Your task to perform on an android device: open app "HBO Max: Stream TV & Movies" Image 0: 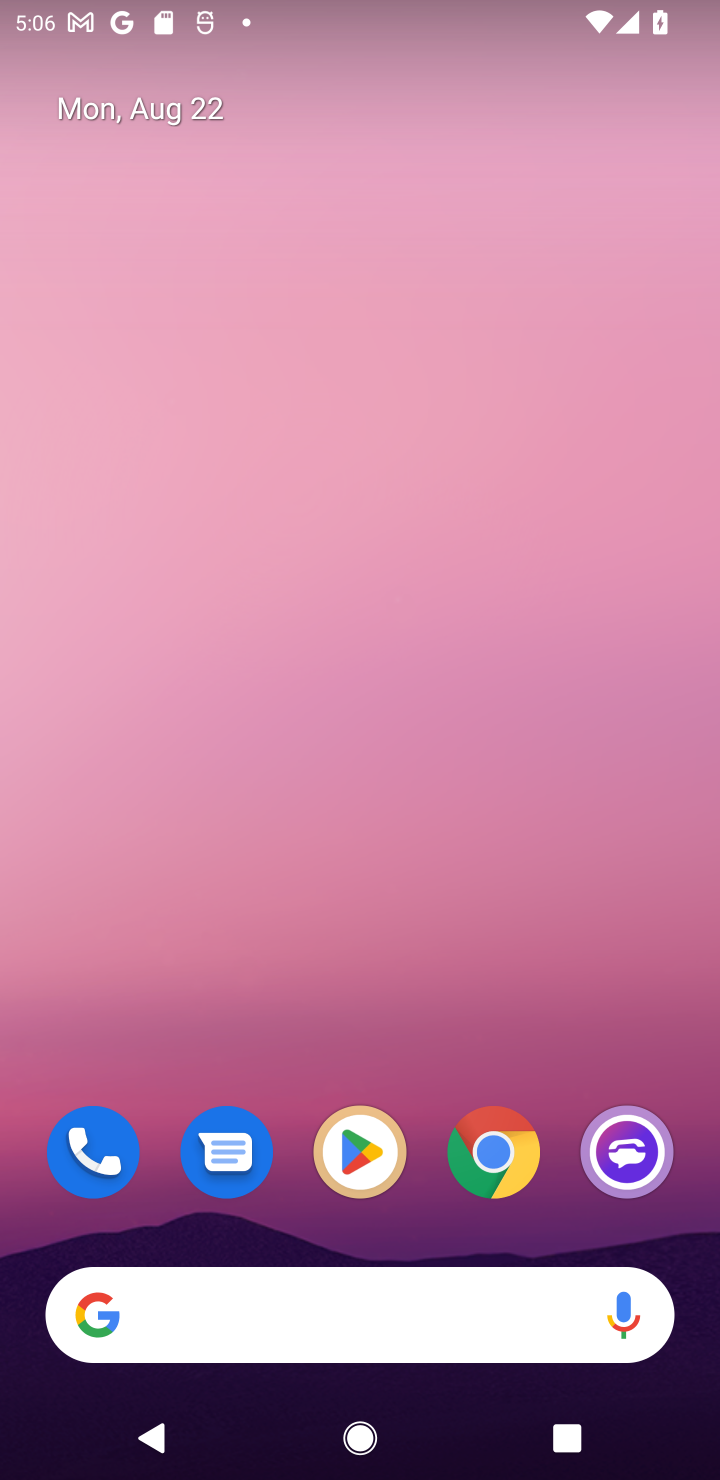
Step 0: click (369, 1157)
Your task to perform on an android device: open app "HBO Max: Stream TV & Movies" Image 1: 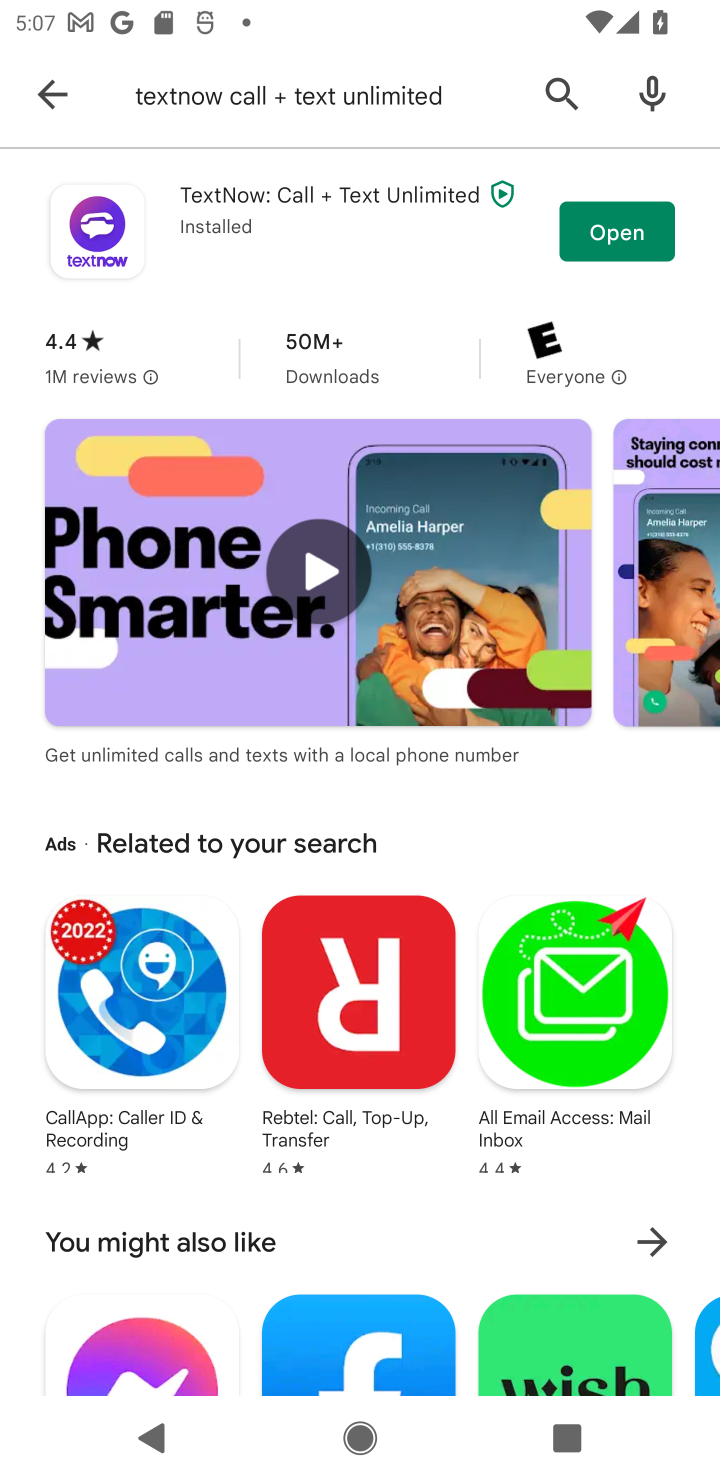
Step 1: click (47, 90)
Your task to perform on an android device: open app "HBO Max: Stream TV & Movies" Image 2: 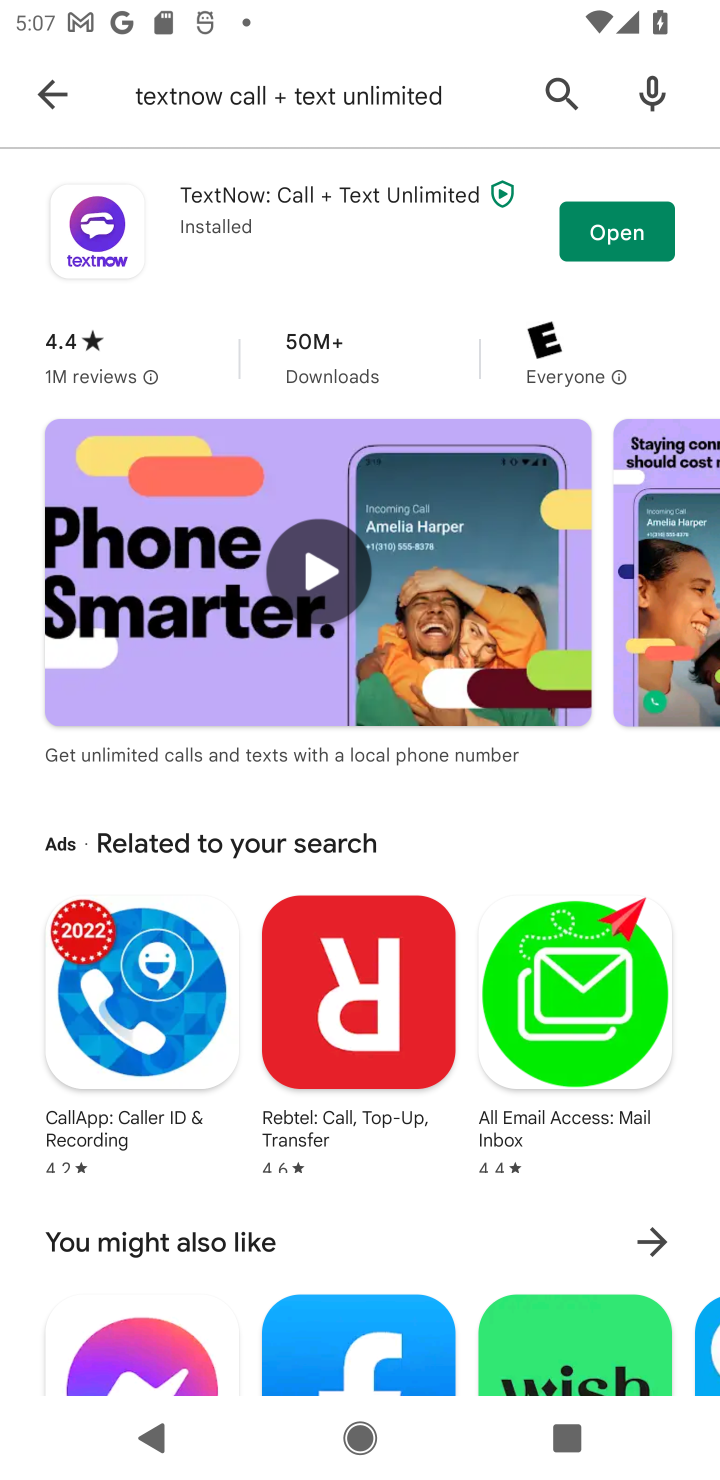
Step 2: click (44, 76)
Your task to perform on an android device: open app "HBO Max: Stream TV & Movies" Image 3: 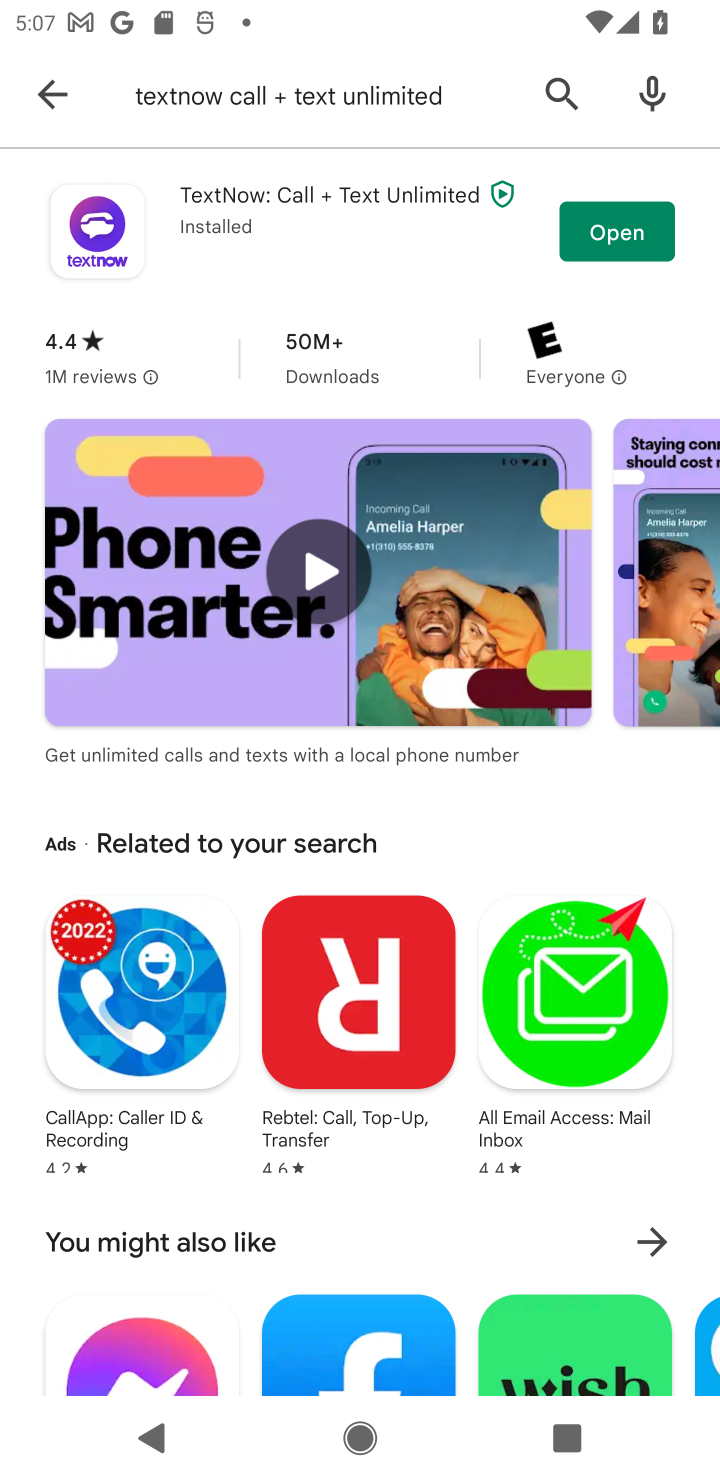
Step 3: click (57, 72)
Your task to perform on an android device: open app "HBO Max: Stream TV & Movies" Image 4: 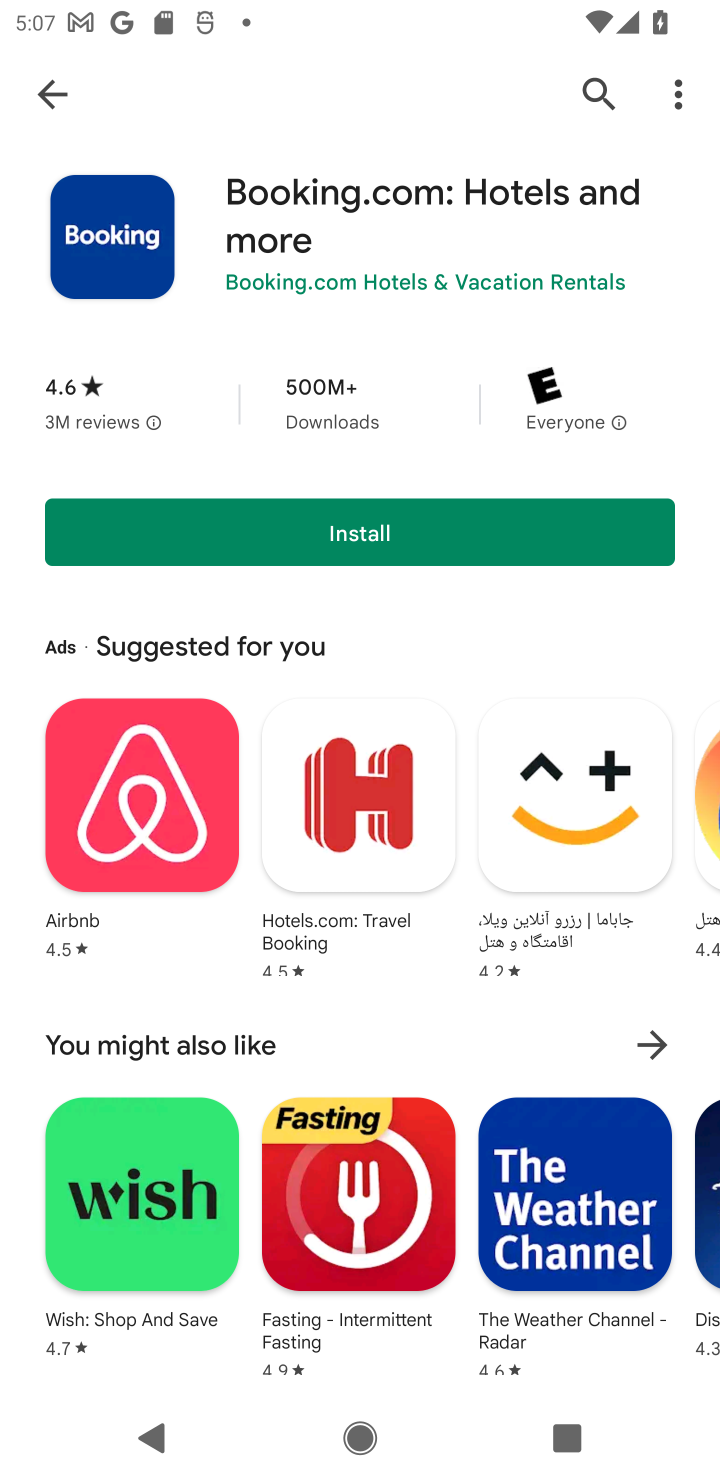
Step 4: click (589, 68)
Your task to perform on an android device: open app "HBO Max: Stream TV & Movies" Image 5: 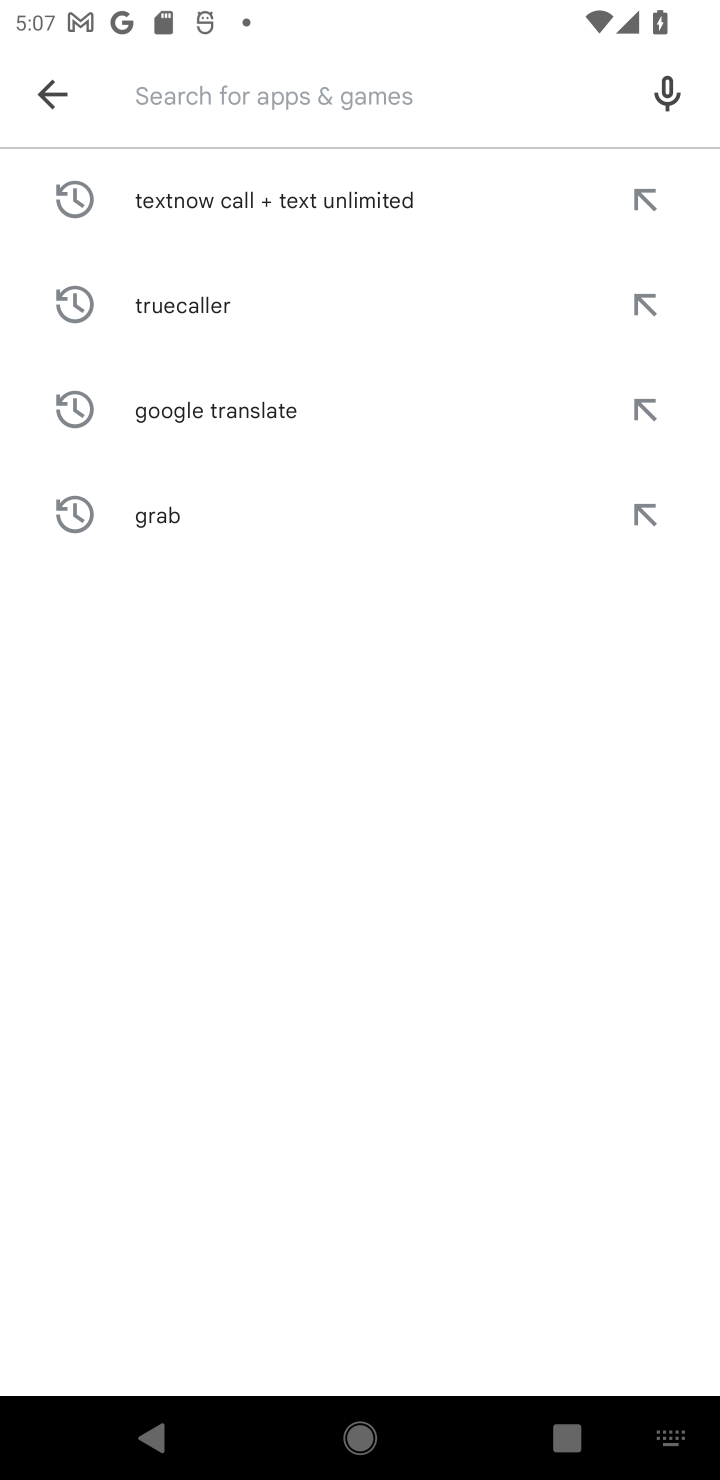
Step 5: drag from (614, 1476) to (689, 1354)
Your task to perform on an android device: open app "HBO Max: Stream TV & Movies" Image 6: 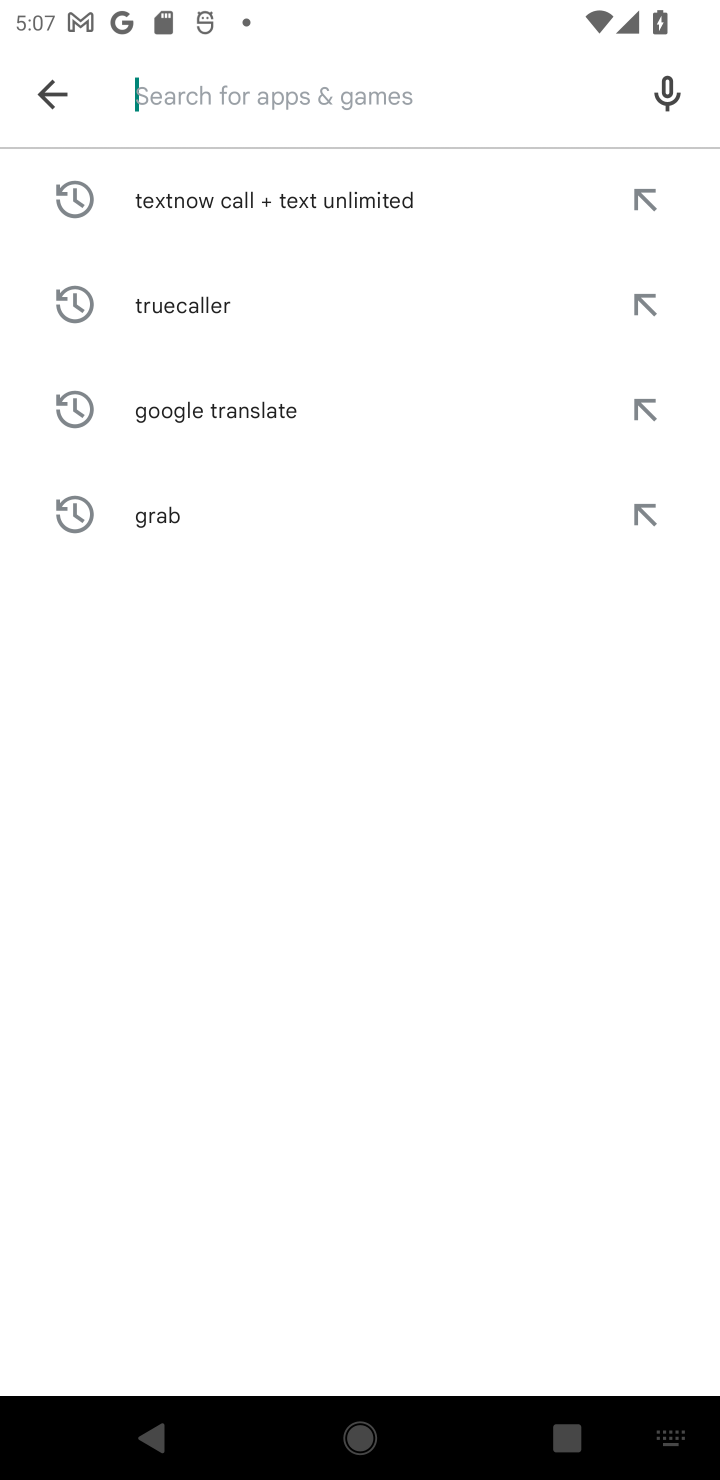
Step 6: type "HBO Max: Stream TV & Movies"
Your task to perform on an android device: open app "HBO Max: Stream TV & Movies" Image 7: 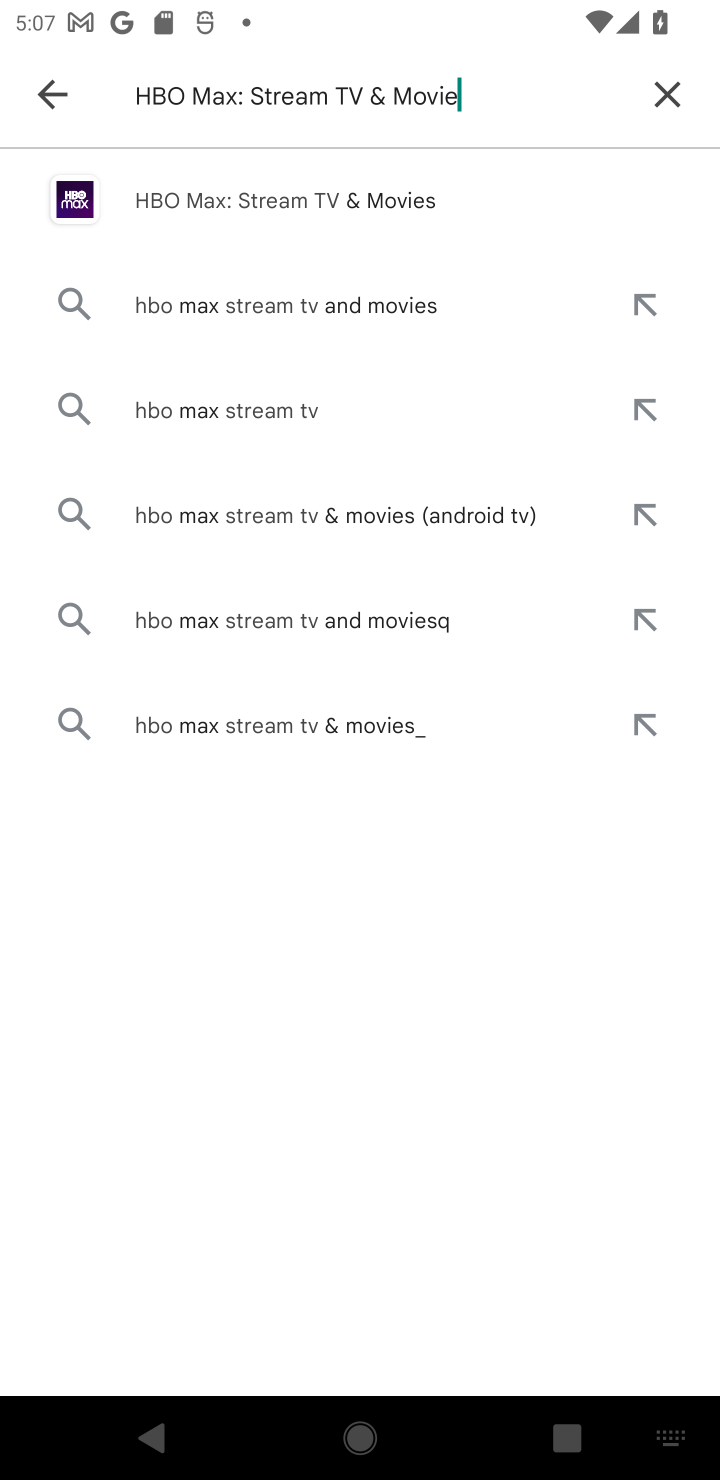
Step 7: type ""
Your task to perform on an android device: open app "HBO Max: Stream TV & Movies" Image 8: 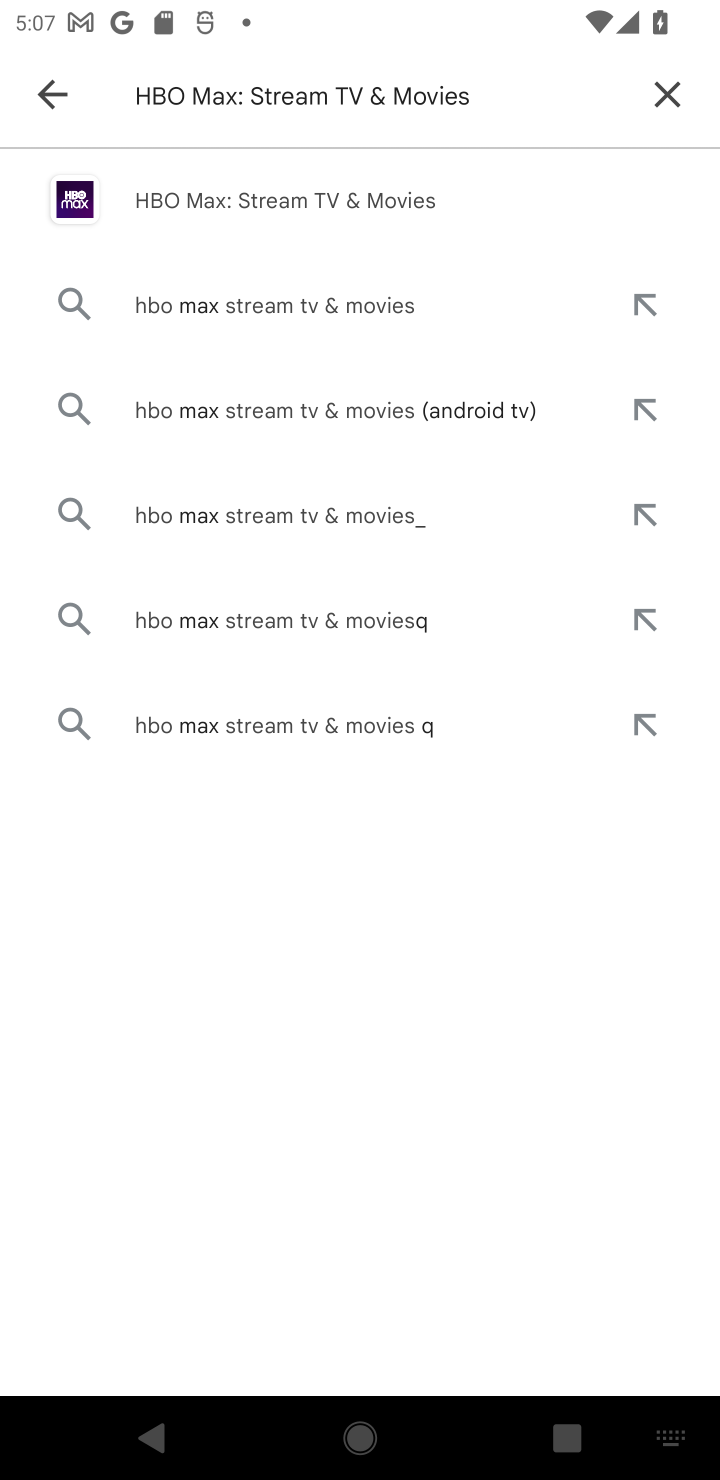
Step 8: click (115, 193)
Your task to perform on an android device: open app "HBO Max: Stream TV & Movies" Image 9: 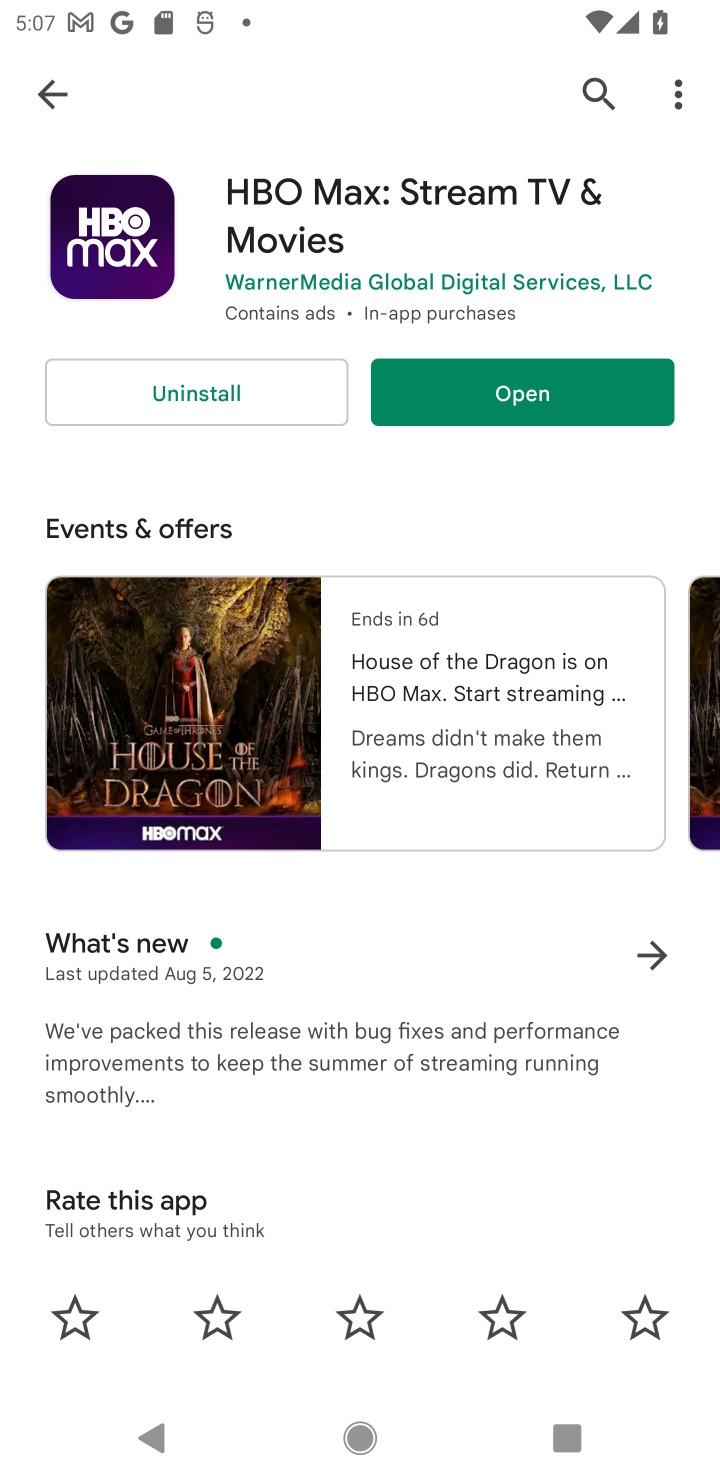
Step 9: click (489, 381)
Your task to perform on an android device: open app "HBO Max: Stream TV & Movies" Image 10: 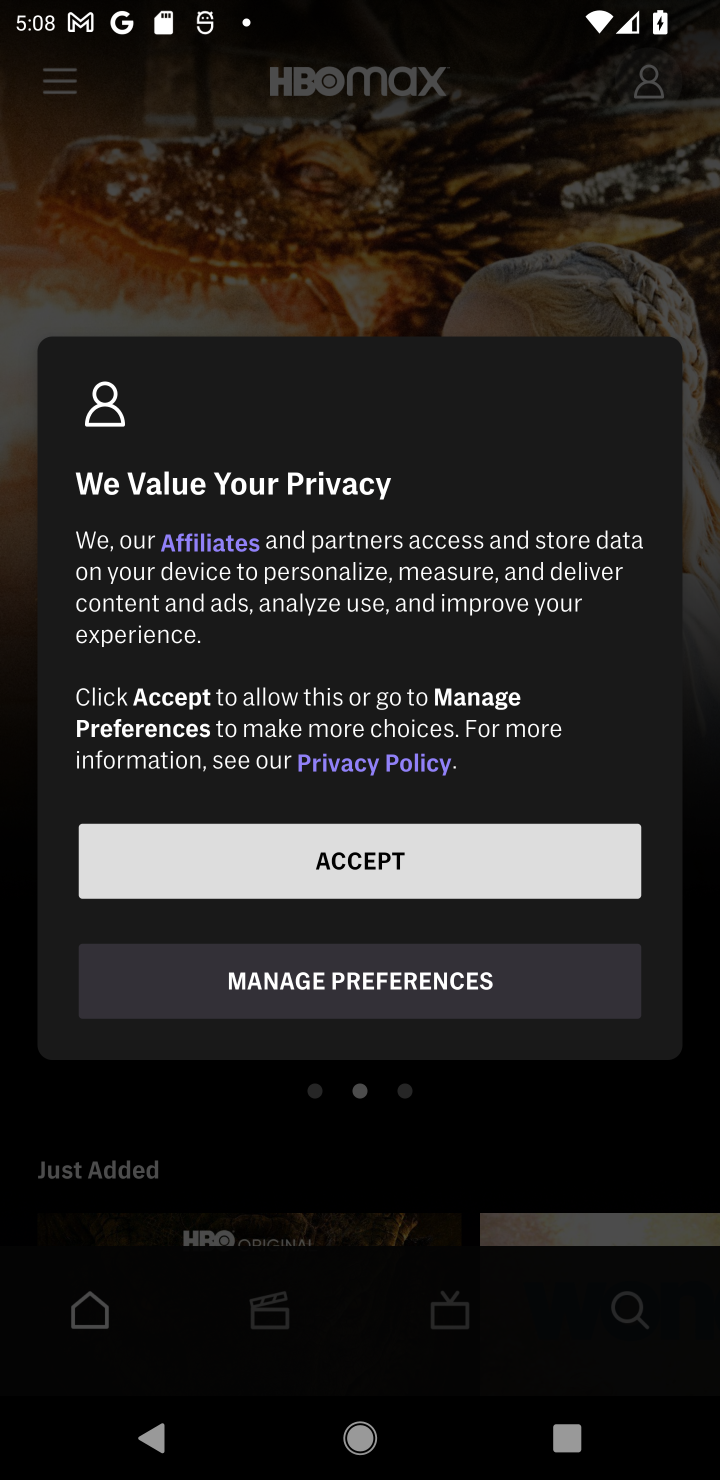
Step 10: click (502, 853)
Your task to perform on an android device: open app "HBO Max: Stream TV & Movies" Image 11: 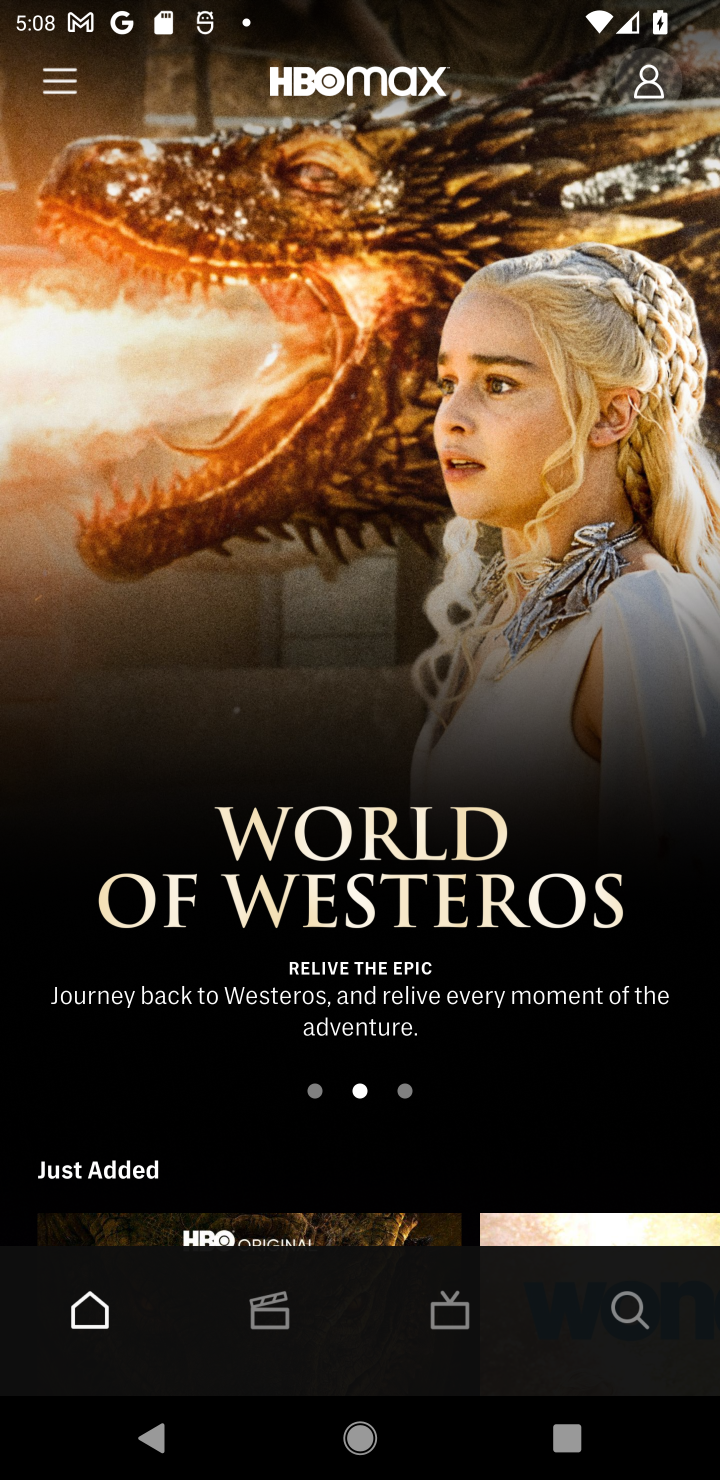
Step 11: task complete